Your task to perform on an android device: Check out the best rated electric trimmers on Lowe's Image 0: 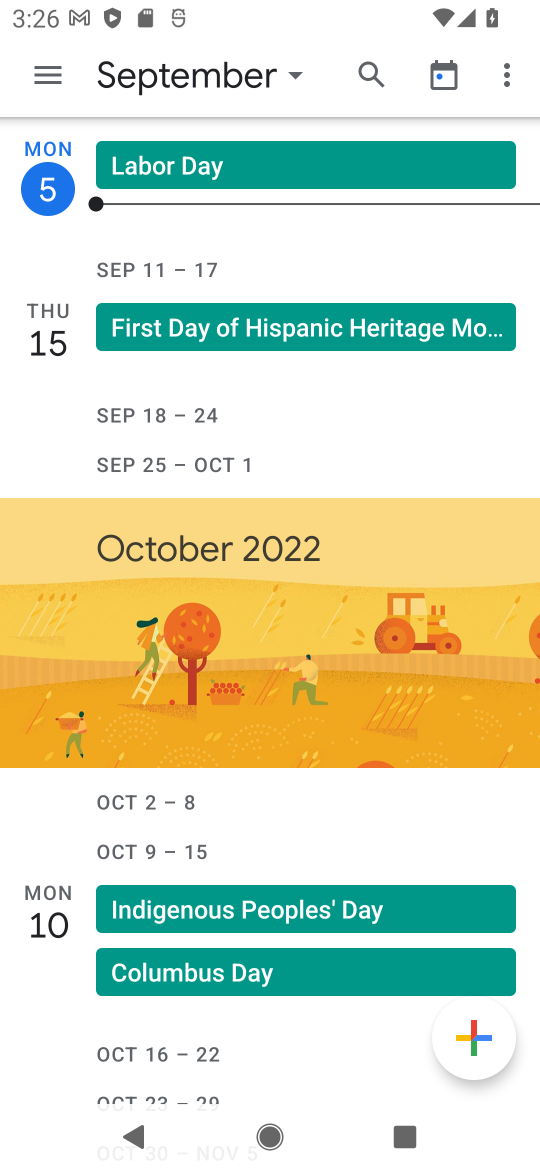
Step 0: press home button
Your task to perform on an android device: Check out the best rated electric trimmers on Lowe's Image 1: 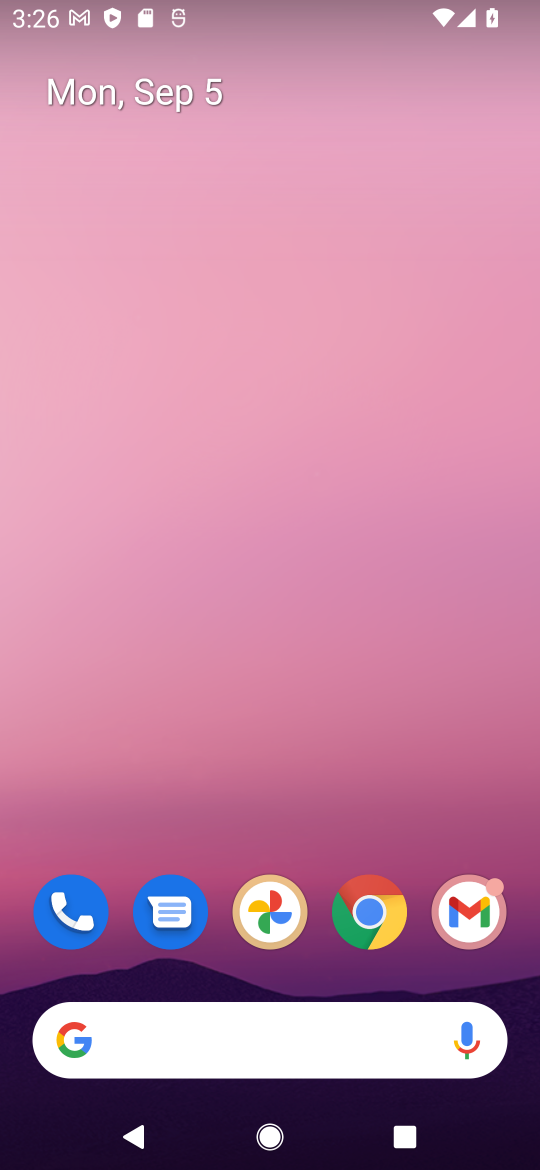
Step 1: click (371, 928)
Your task to perform on an android device: Check out the best rated electric trimmers on Lowe's Image 2: 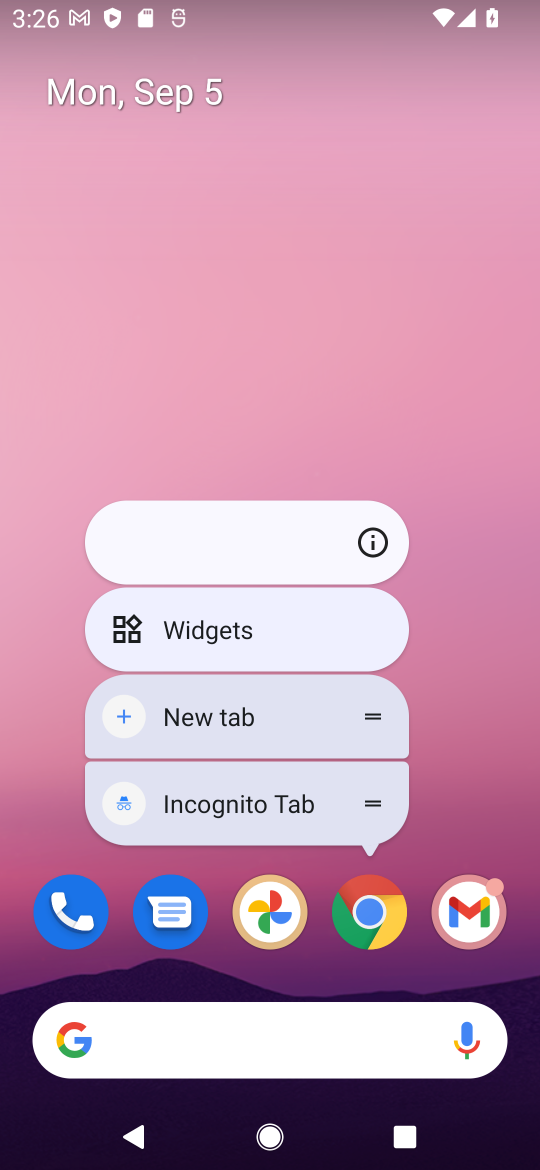
Step 2: click (392, 922)
Your task to perform on an android device: Check out the best rated electric trimmers on Lowe's Image 3: 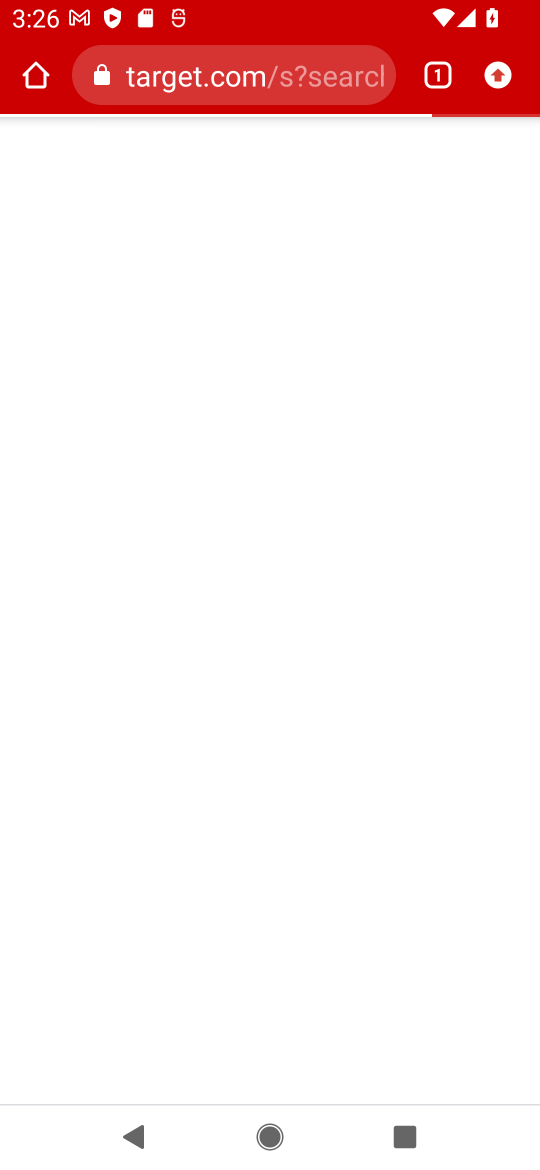
Step 3: click (284, 70)
Your task to perform on an android device: Check out the best rated electric trimmers on Lowe's Image 4: 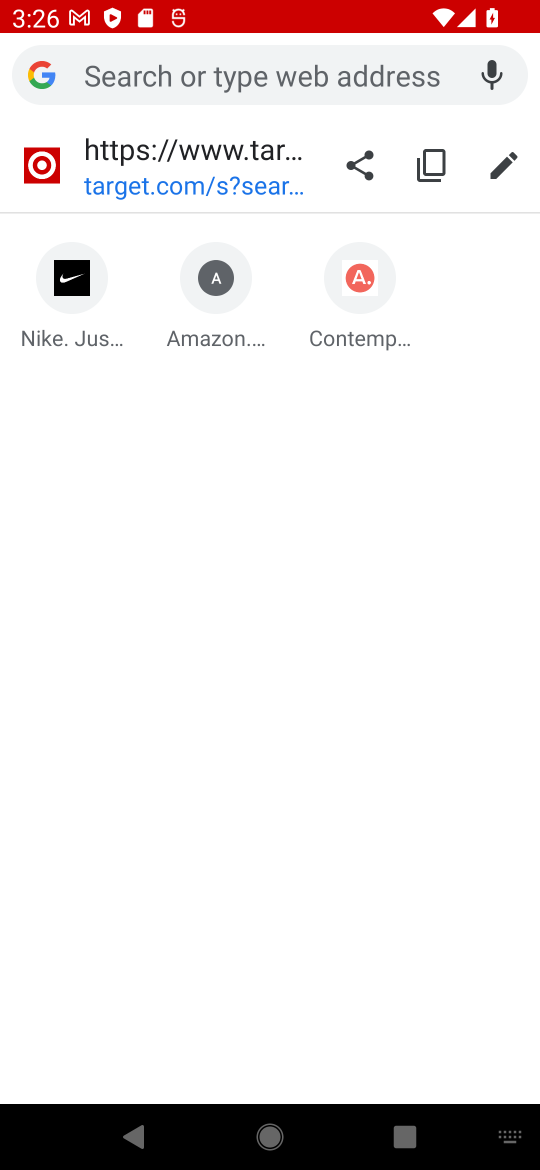
Step 4: type "lowe's"
Your task to perform on an android device: Check out the best rated electric trimmers on Lowe's Image 5: 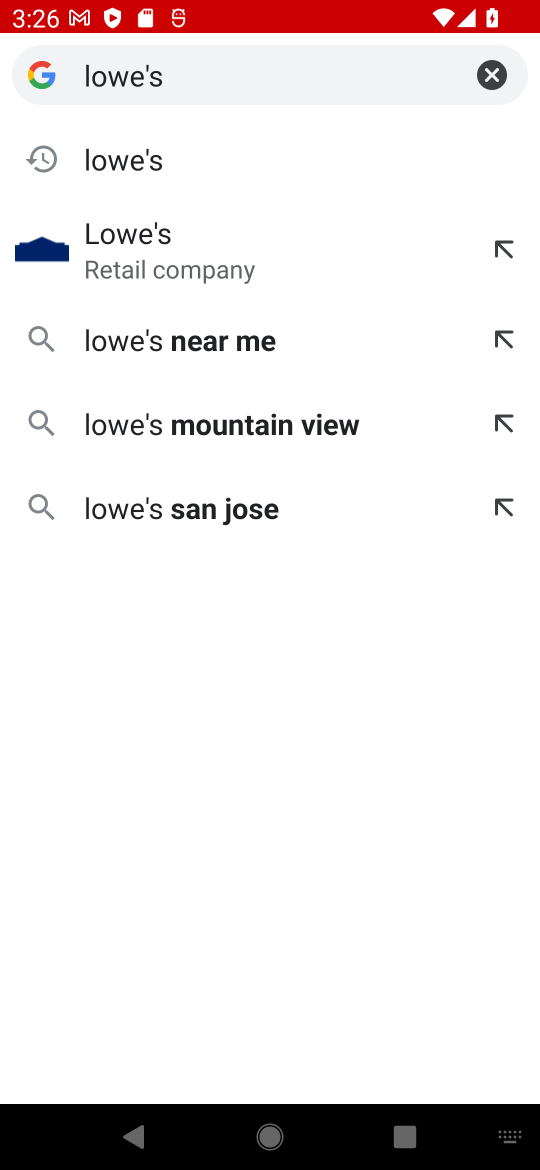
Step 5: press enter
Your task to perform on an android device: Check out the best rated electric trimmers on Lowe's Image 6: 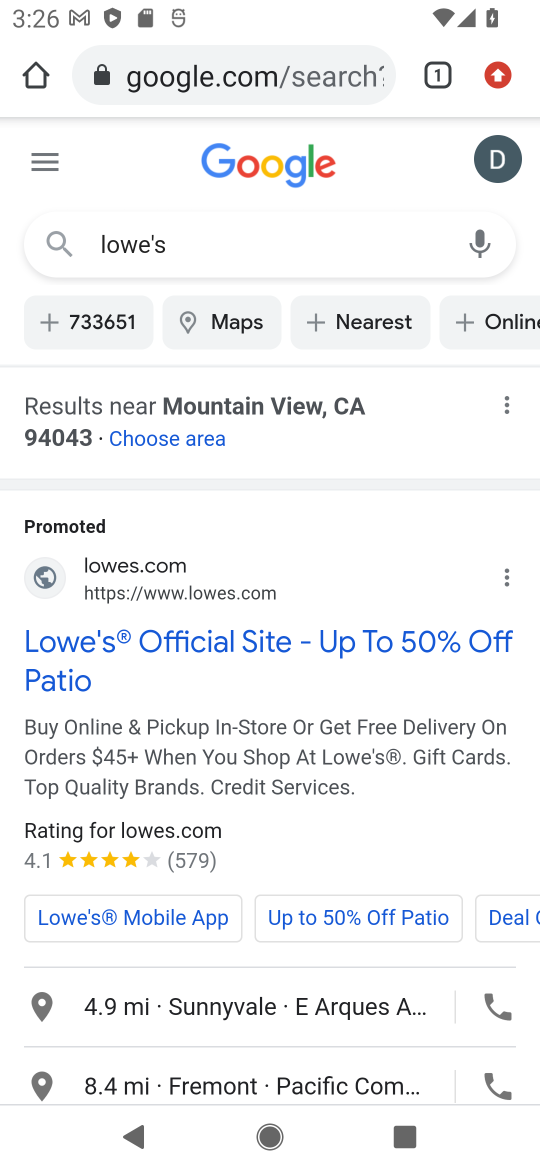
Step 6: click (69, 649)
Your task to perform on an android device: Check out the best rated electric trimmers on Lowe's Image 7: 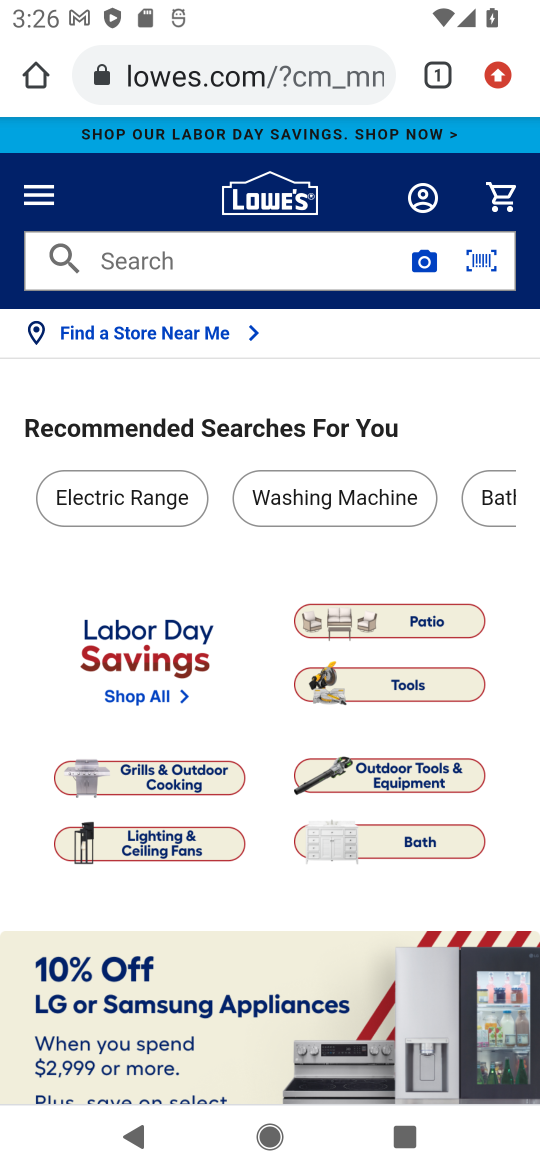
Step 7: click (248, 256)
Your task to perform on an android device: Check out the best rated electric trimmers on Lowe's Image 8: 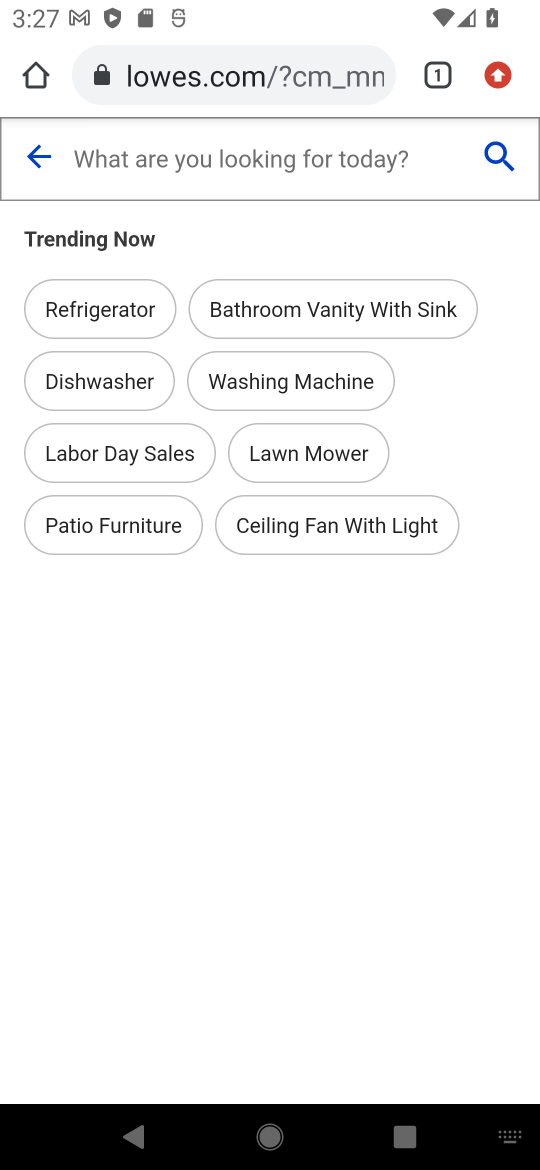
Step 8: type "best rated electric trimmers"
Your task to perform on an android device: Check out the best rated electric trimmers on Lowe's Image 9: 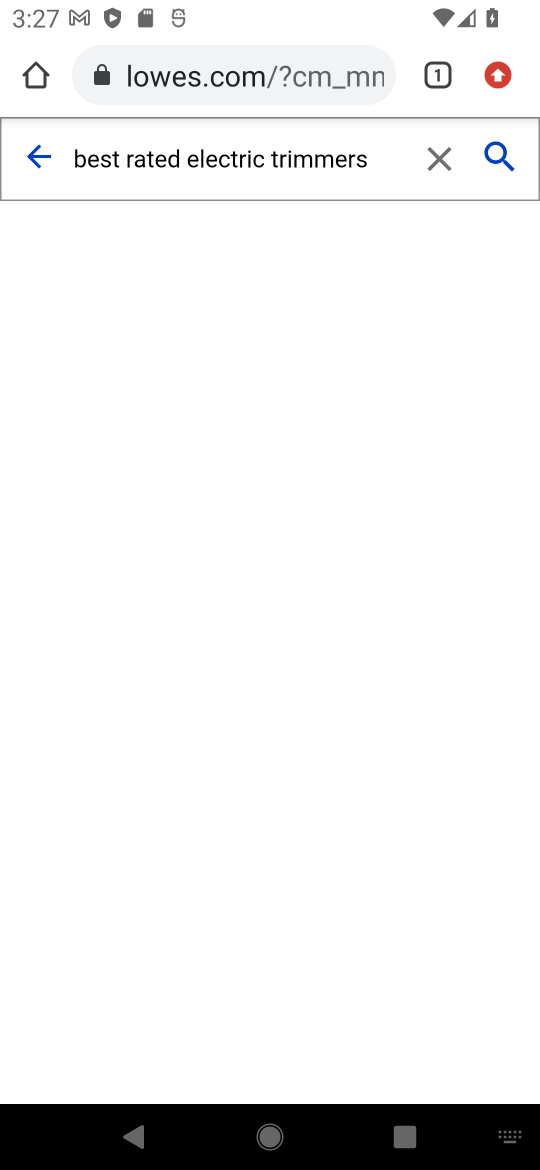
Step 9: press enter
Your task to perform on an android device: Check out the best rated electric trimmers on Lowe's Image 10: 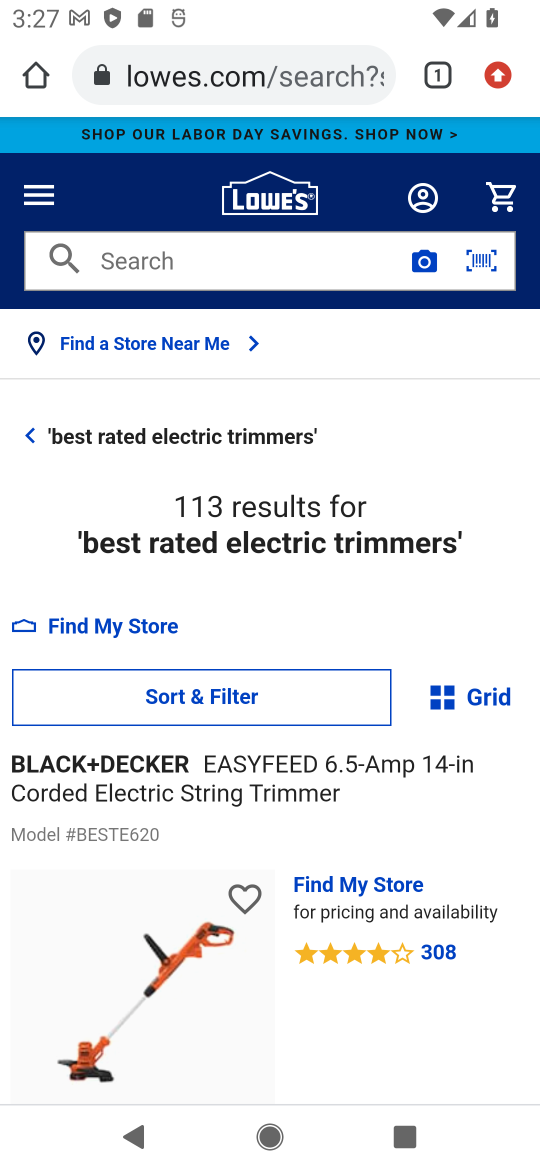
Step 10: click (308, 700)
Your task to perform on an android device: Check out the best rated electric trimmers on Lowe's Image 11: 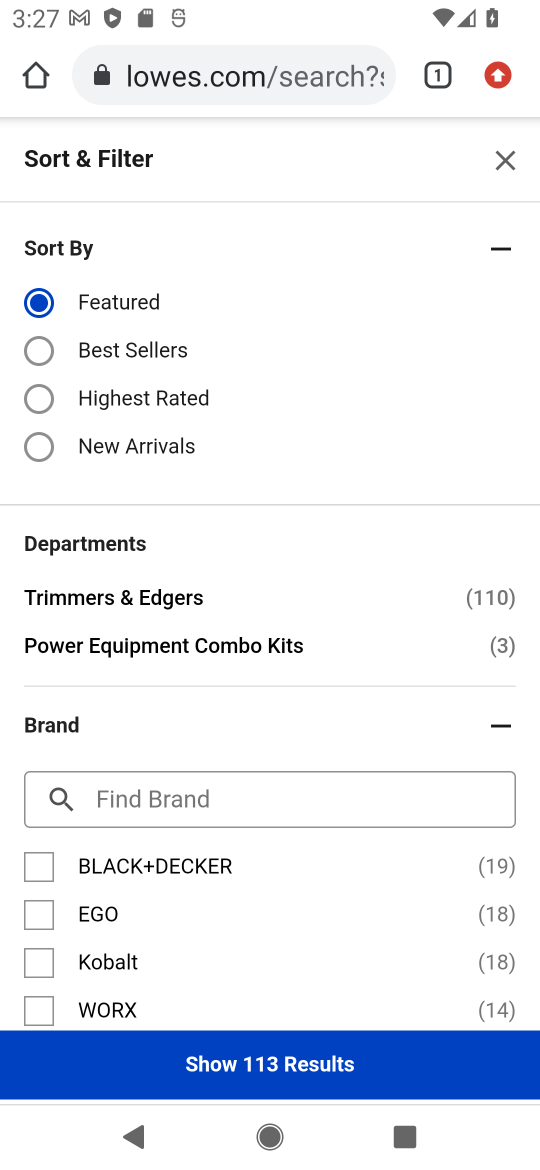
Step 11: click (114, 401)
Your task to perform on an android device: Check out the best rated electric trimmers on Lowe's Image 12: 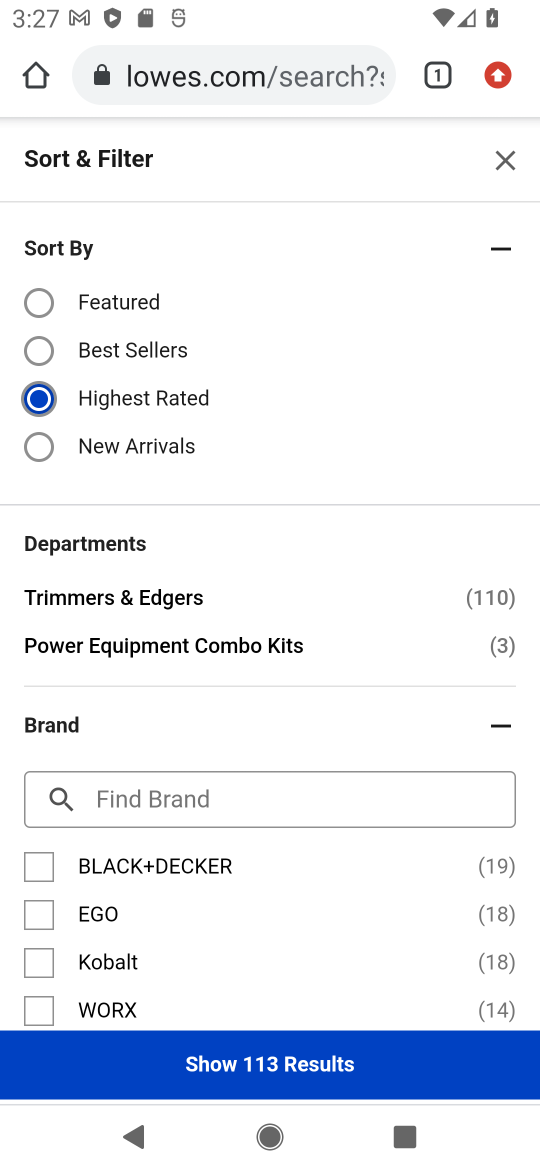
Step 12: click (375, 1077)
Your task to perform on an android device: Check out the best rated electric trimmers on Lowe's Image 13: 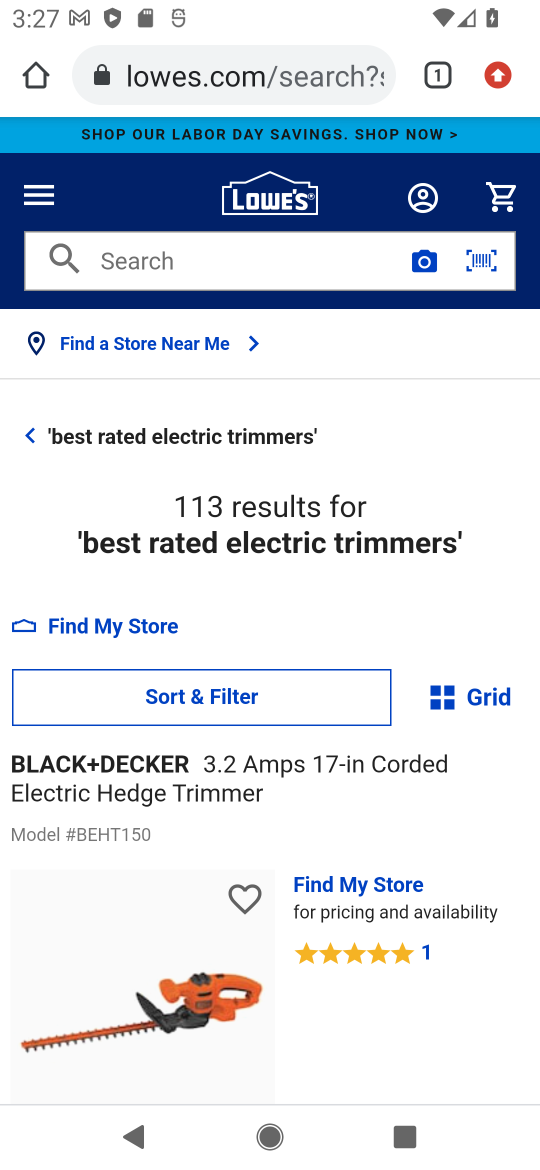
Step 13: task complete